Your task to perform on an android device: turn off location history Image 0: 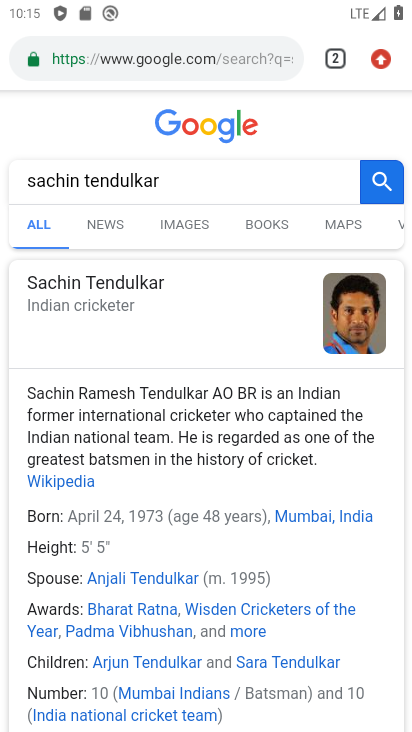
Step 0: press home button
Your task to perform on an android device: turn off location history Image 1: 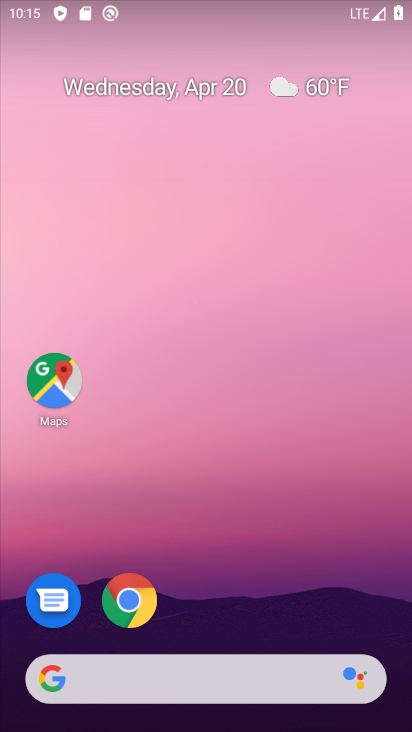
Step 1: drag from (227, 380) to (238, 82)
Your task to perform on an android device: turn off location history Image 2: 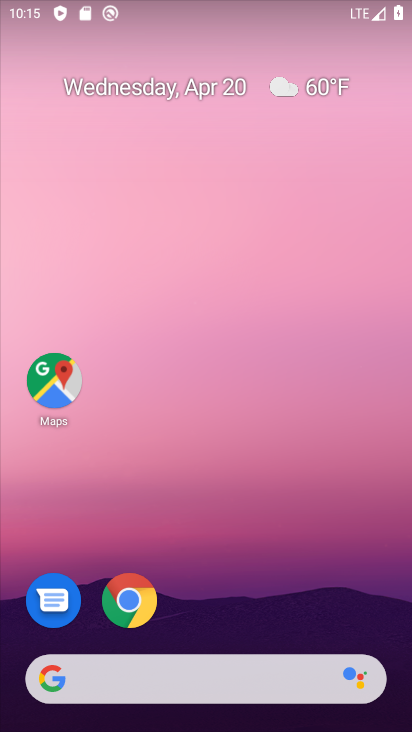
Step 2: click (51, 379)
Your task to perform on an android device: turn off location history Image 3: 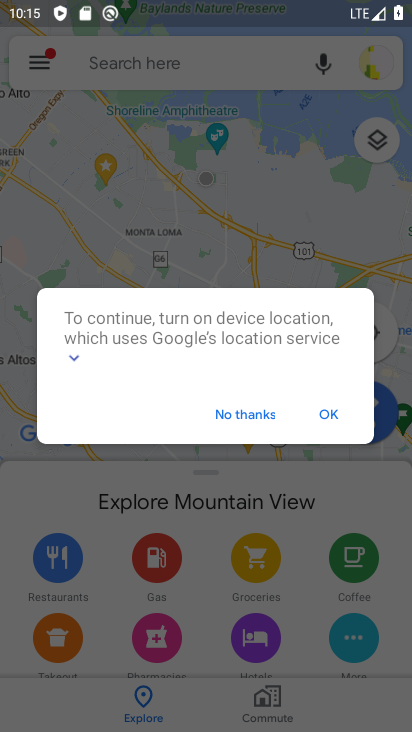
Step 3: click (291, 412)
Your task to perform on an android device: turn off location history Image 4: 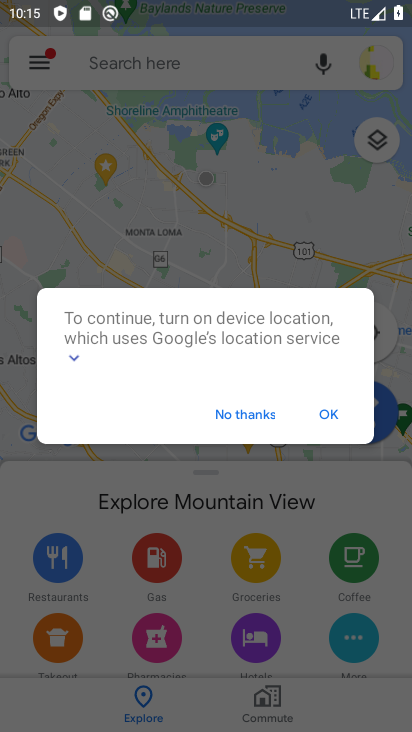
Step 4: click (325, 424)
Your task to perform on an android device: turn off location history Image 5: 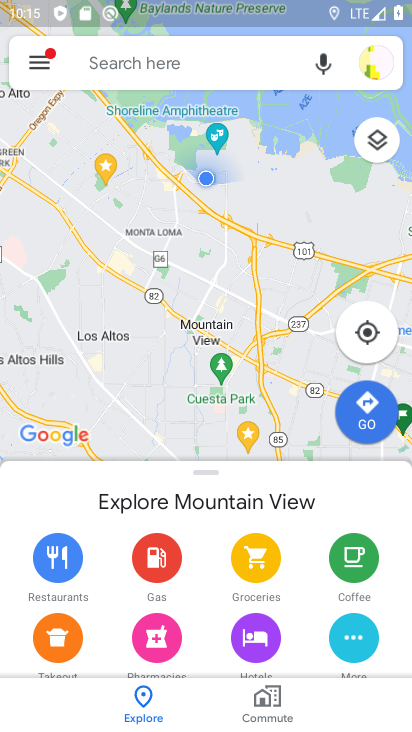
Step 5: click (45, 47)
Your task to perform on an android device: turn off location history Image 6: 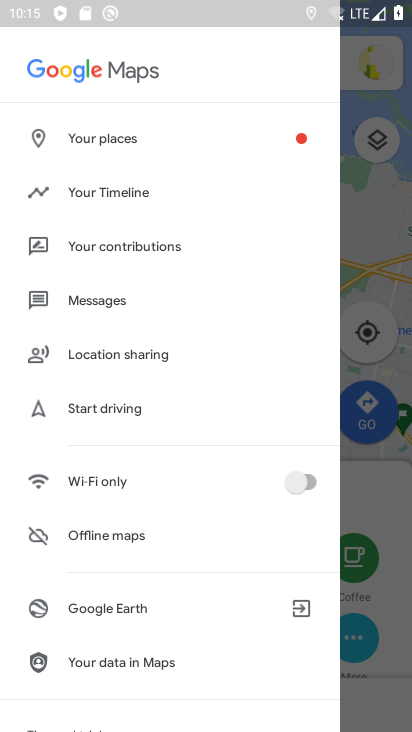
Step 6: click (113, 186)
Your task to perform on an android device: turn off location history Image 7: 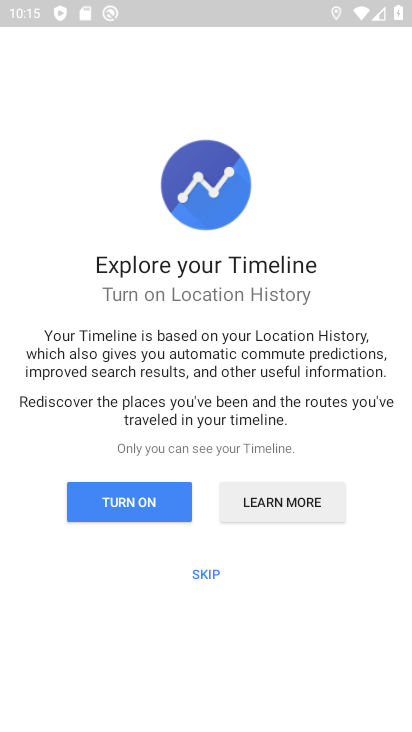
Step 7: click (147, 494)
Your task to perform on an android device: turn off location history Image 8: 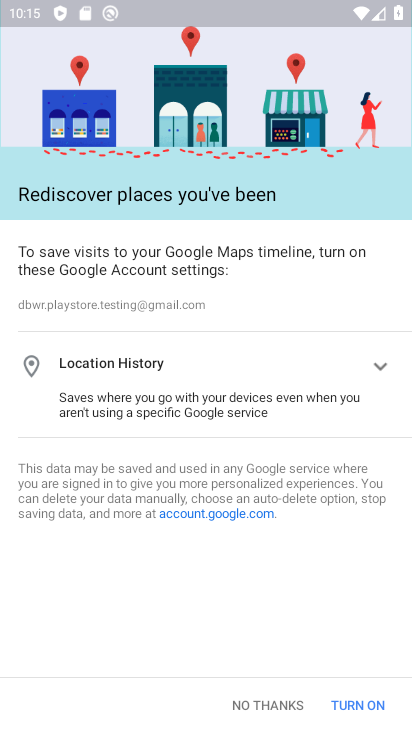
Step 8: click (368, 708)
Your task to perform on an android device: turn off location history Image 9: 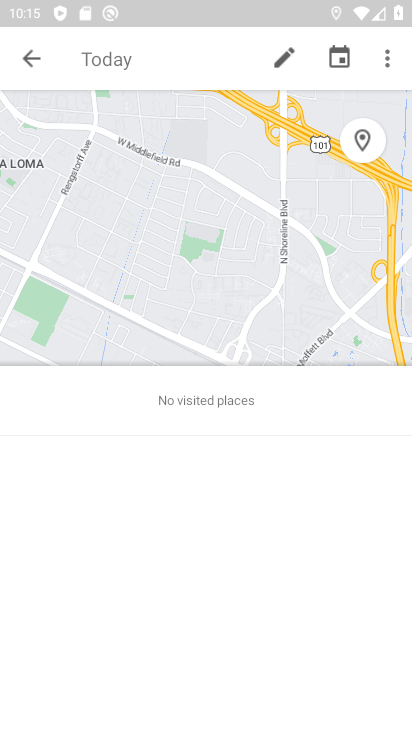
Step 9: click (400, 60)
Your task to perform on an android device: turn off location history Image 10: 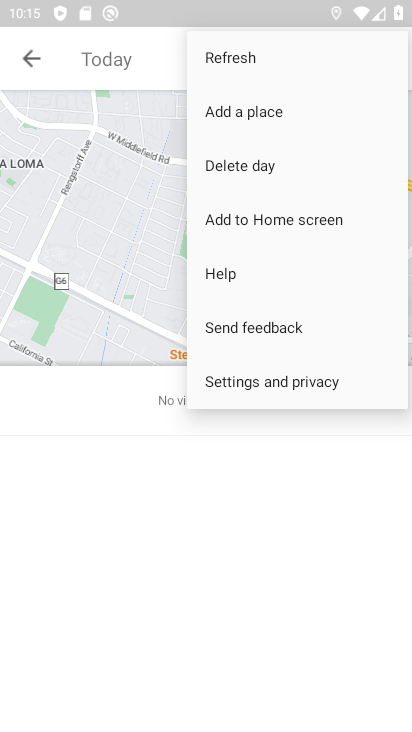
Step 10: click (265, 383)
Your task to perform on an android device: turn off location history Image 11: 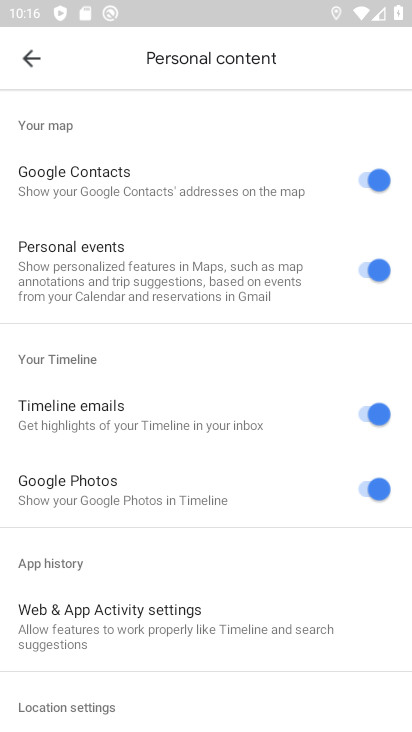
Step 11: drag from (154, 610) to (172, 174)
Your task to perform on an android device: turn off location history Image 12: 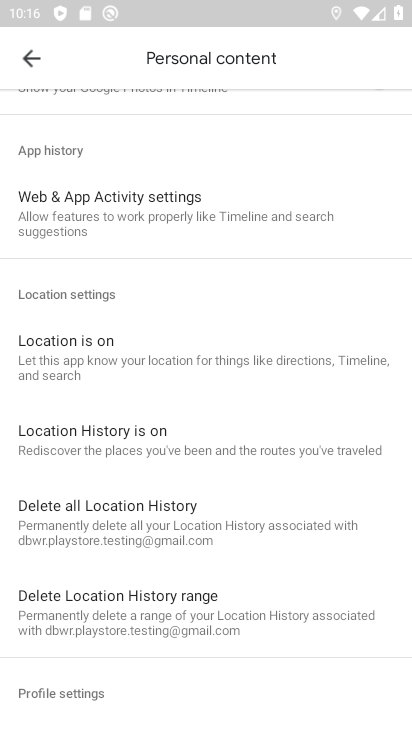
Step 12: click (146, 458)
Your task to perform on an android device: turn off location history Image 13: 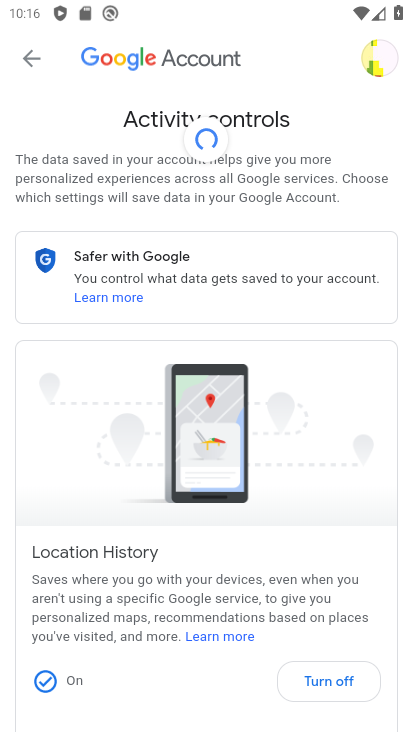
Step 13: click (341, 667)
Your task to perform on an android device: turn off location history Image 14: 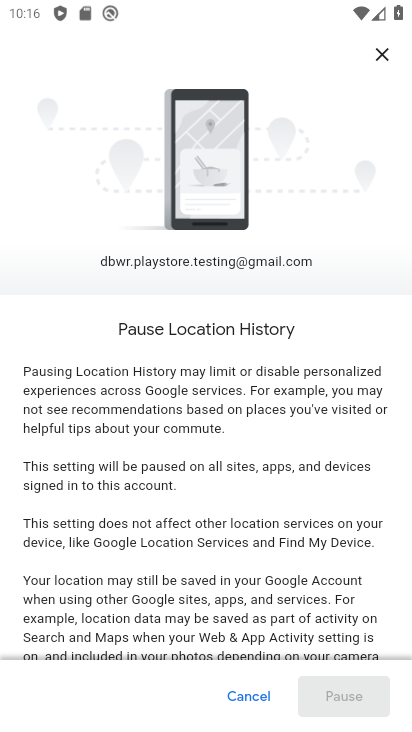
Step 14: task complete